Your task to perform on an android device: Search for Italian restaurants on Maps Image 0: 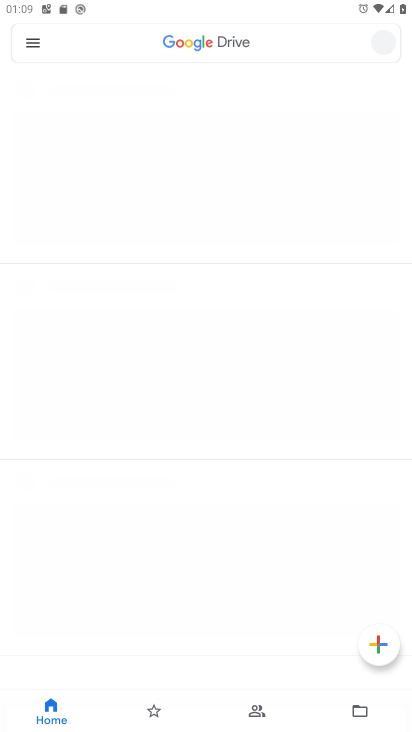
Step 0: drag from (171, 670) to (180, 369)
Your task to perform on an android device: Search for Italian restaurants on Maps Image 1: 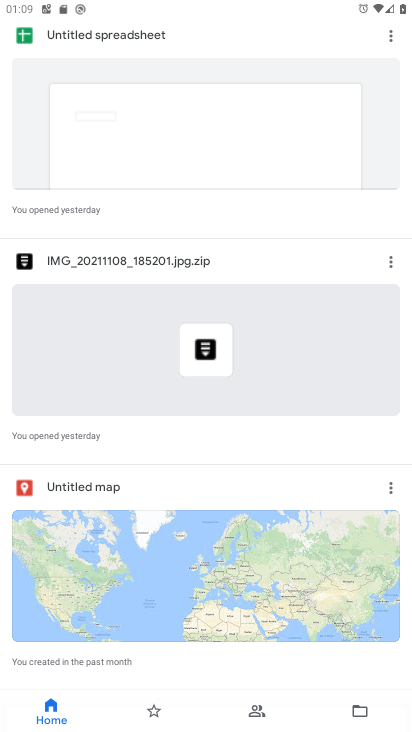
Step 1: press home button
Your task to perform on an android device: Search for Italian restaurants on Maps Image 2: 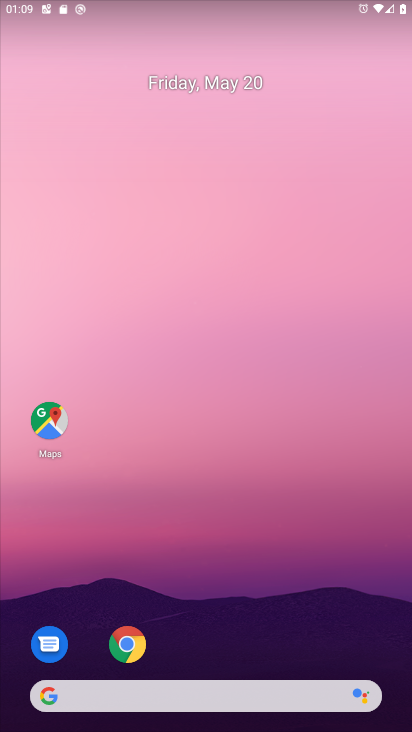
Step 2: click (47, 420)
Your task to perform on an android device: Search for Italian restaurants on Maps Image 3: 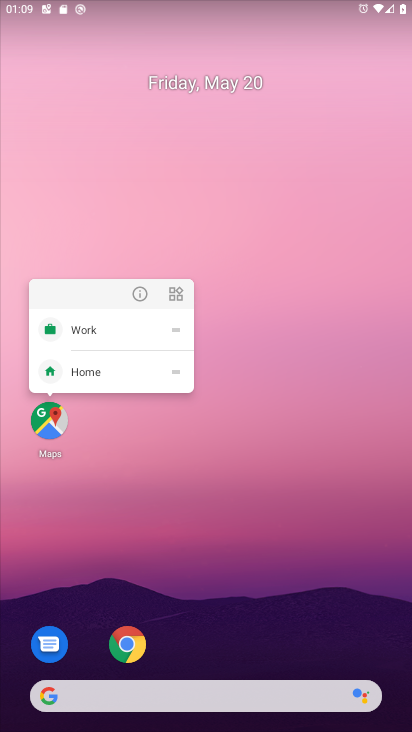
Step 3: click (47, 424)
Your task to perform on an android device: Search for Italian restaurants on Maps Image 4: 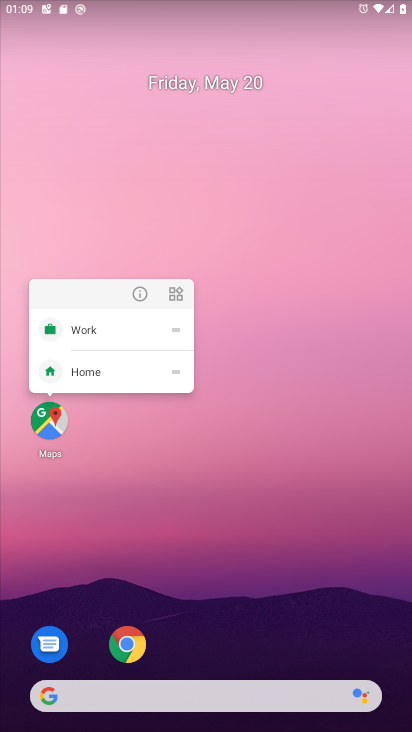
Step 4: click (51, 424)
Your task to perform on an android device: Search for Italian restaurants on Maps Image 5: 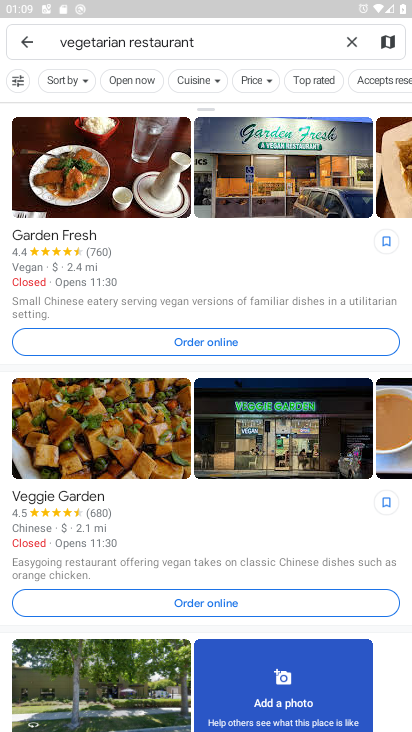
Step 5: click (352, 44)
Your task to perform on an android device: Search for Italian restaurants on Maps Image 6: 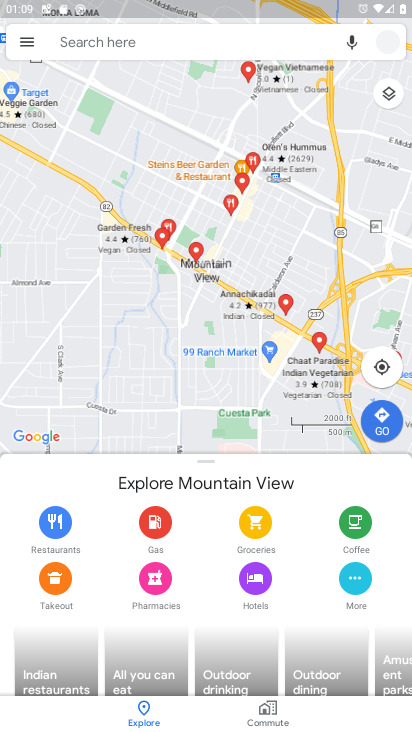
Step 6: click (182, 42)
Your task to perform on an android device: Search for Italian restaurants on Maps Image 7: 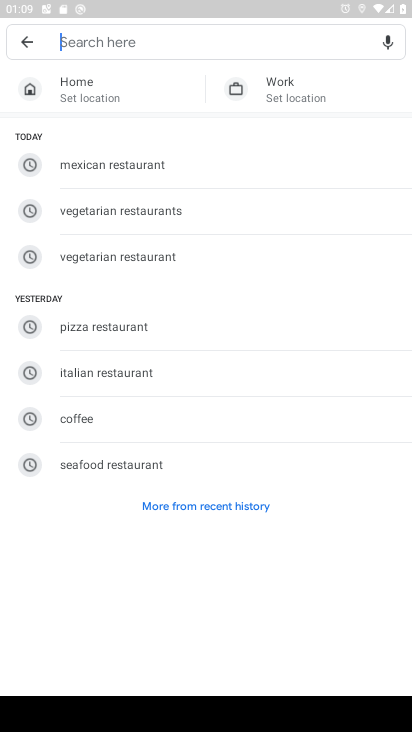
Step 7: click (86, 360)
Your task to perform on an android device: Search for Italian restaurants on Maps Image 8: 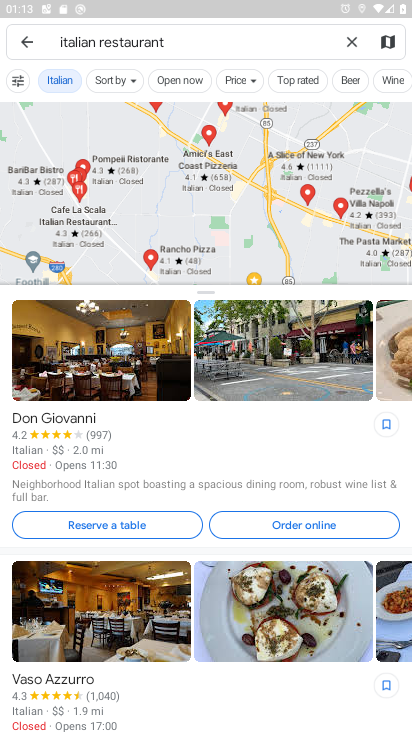
Step 8: task complete